Your task to perform on an android device: Go to ESPN.com Image 0: 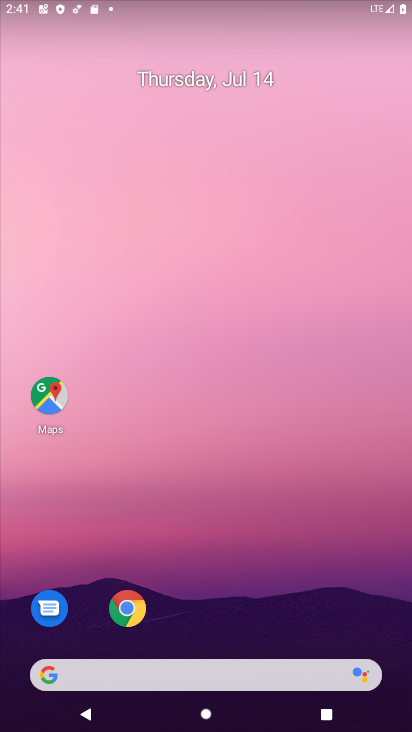
Step 0: click (125, 617)
Your task to perform on an android device: Go to ESPN.com Image 1: 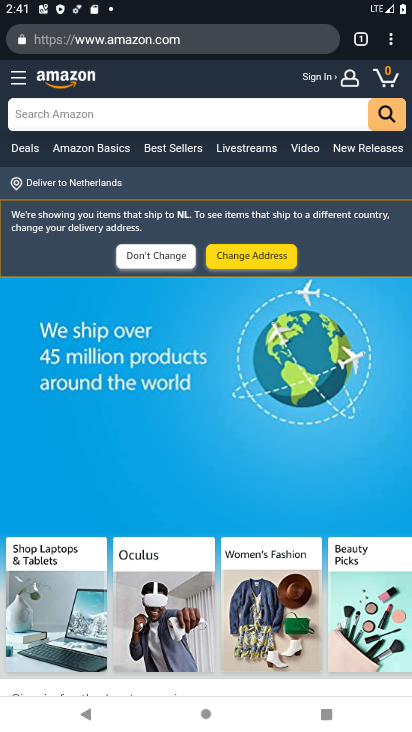
Step 1: click (363, 41)
Your task to perform on an android device: Go to ESPN.com Image 2: 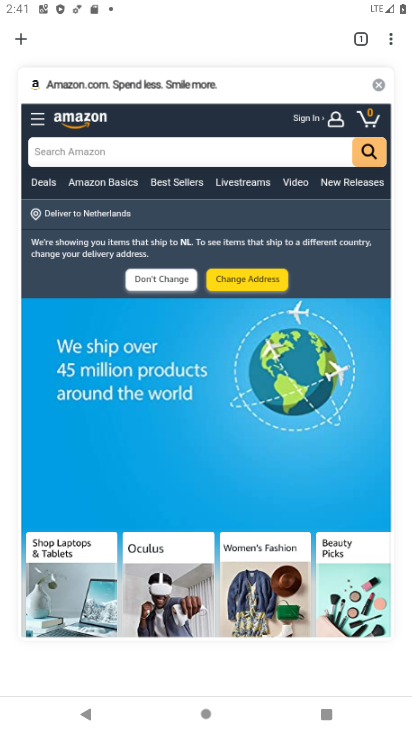
Step 2: click (377, 82)
Your task to perform on an android device: Go to ESPN.com Image 3: 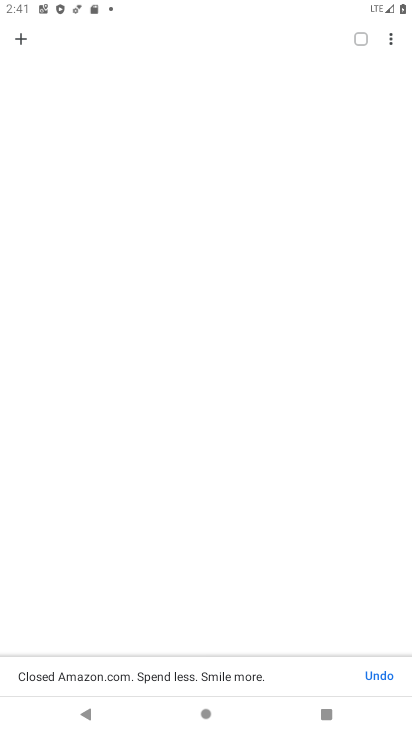
Step 3: click (22, 39)
Your task to perform on an android device: Go to ESPN.com Image 4: 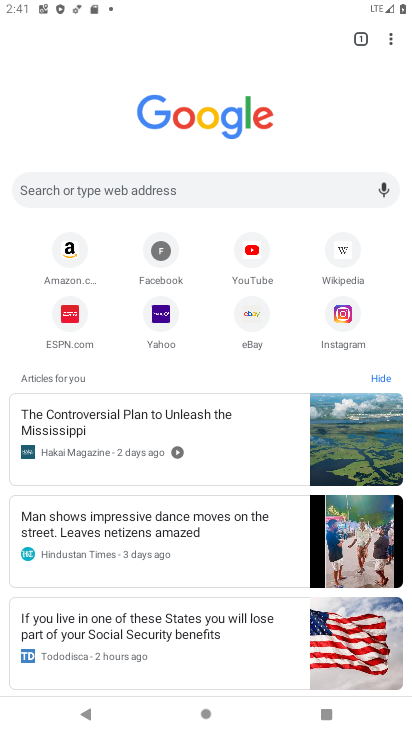
Step 4: click (72, 307)
Your task to perform on an android device: Go to ESPN.com Image 5: 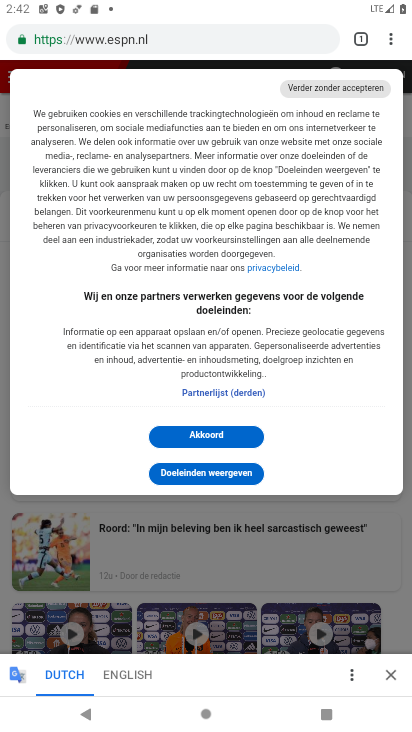
Step 5: task complete